Your task to perform on an android device: open chrome privacy settings Image 0: 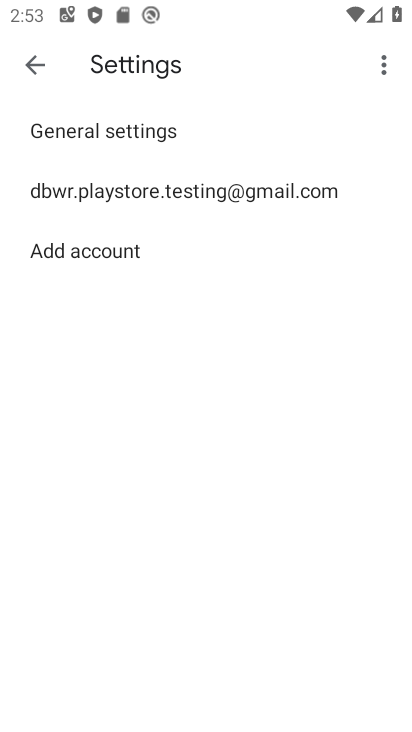
Step 0: press home button
Your task to perform on an android device: open chrome privacy settings Image 1: 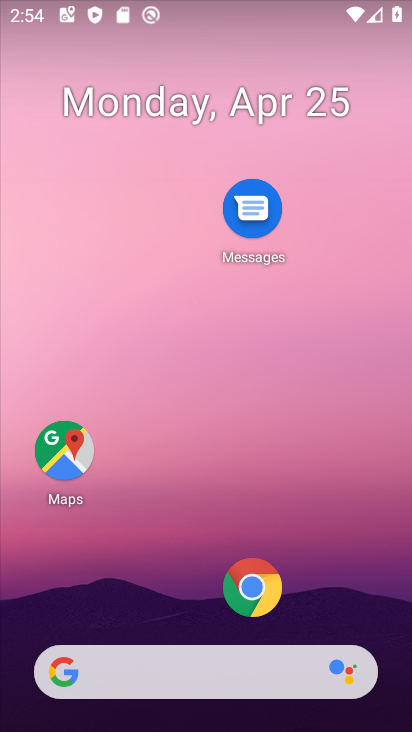
Step 1: click (247, 592)
Your task to perform on an android device: open chrome privacy settings Image 2: 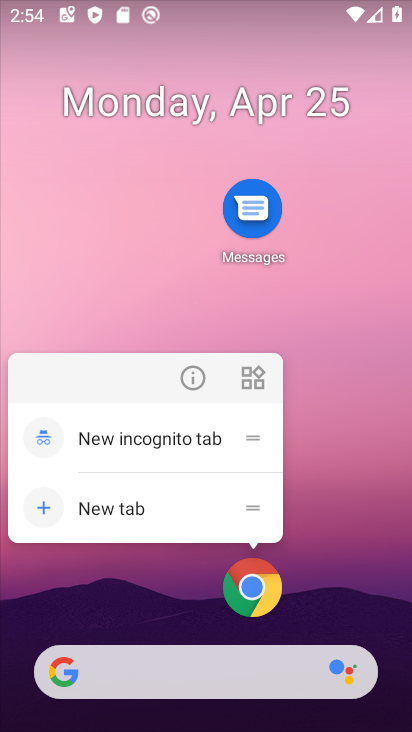
Step 2: click (191, 379)
Your task to perform on an android device: open chrome privacy settings Image 3: 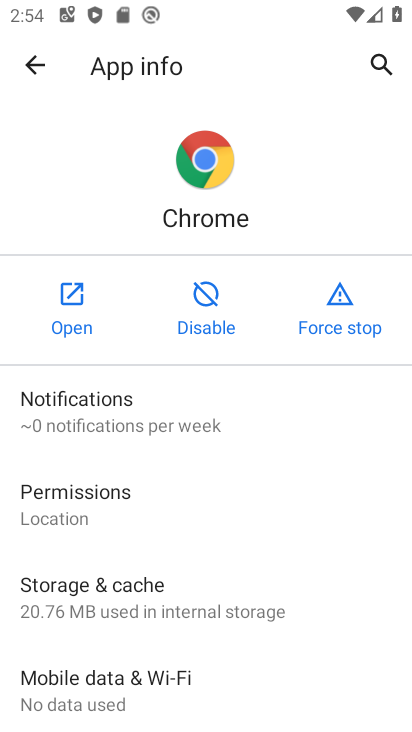
Step 3: click (65, 324)
Your task to perform on an android device: open chrome privacy settings Image 4: 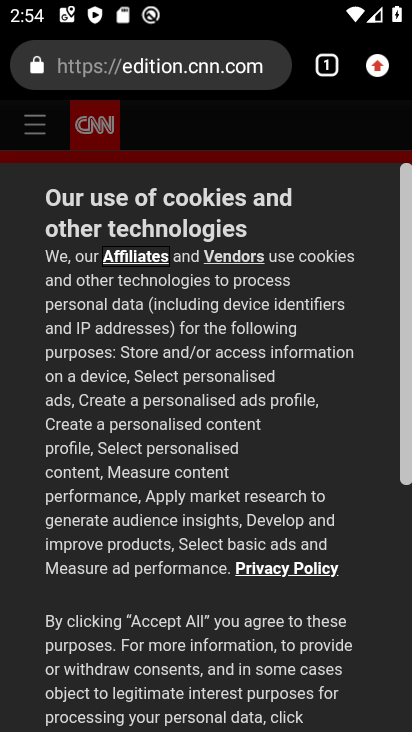
Step 4: click (390, 78)
Your task to perform on an android device: open chrome privacy settings Image 5: 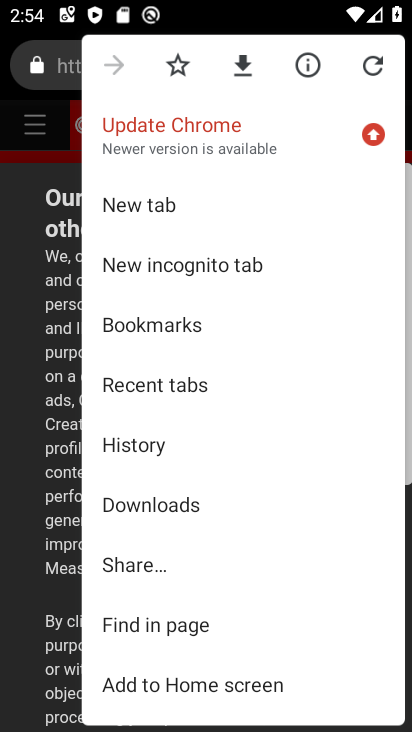
Step 5: drag from (193, 642) to (261, 278)
Your task to perform on an android device: open chrome privacy settings Image 6: 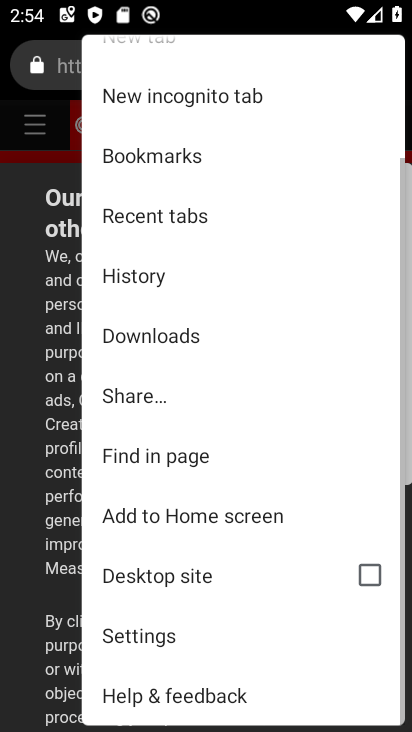
Step 6: click (207, 644)
Your task to perform on an android device: open chrome privacy settings Image 7: 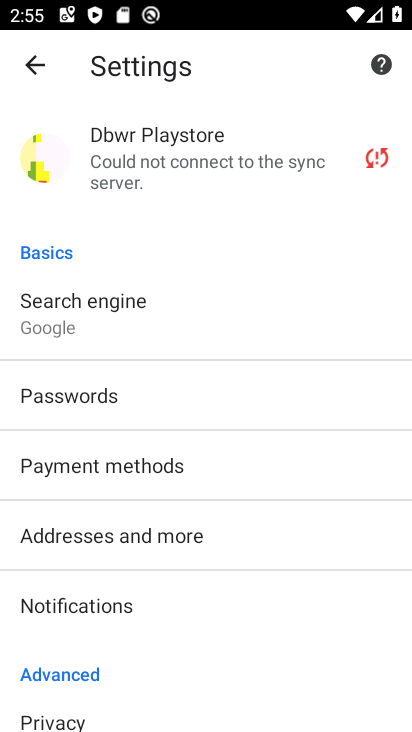
Step 7: drag from (167, 593) to (212, 406)
Your task to perform on an android device: open chrome privacy settings Image 8: 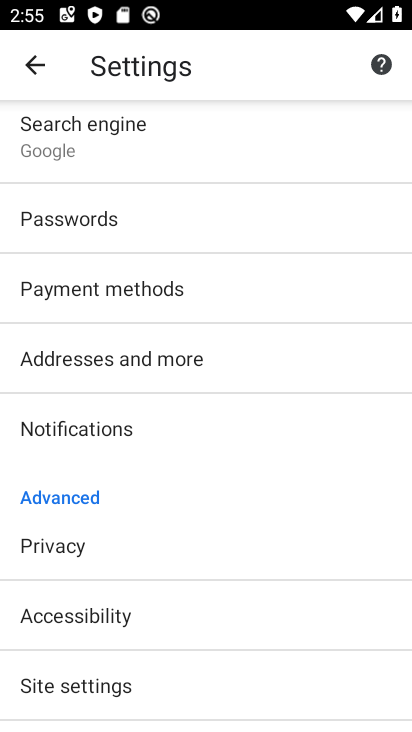
Step 8: click (144, 551)
Your task to perform on an android device: open chrome privacy settings Image 9: 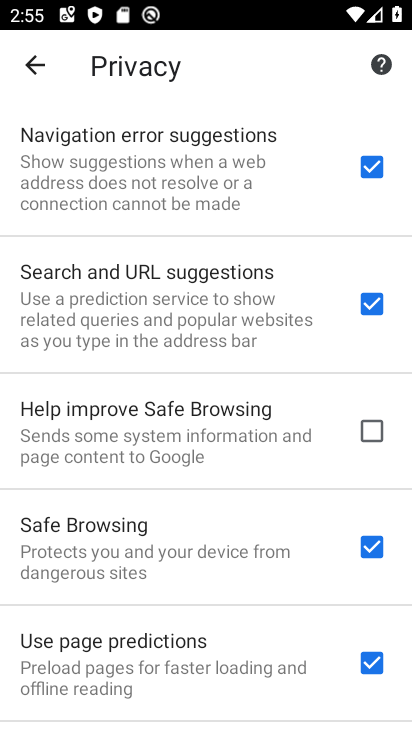
Step 9: task complete